Your task to perform on an android device: turn on airplane mode Image 0: 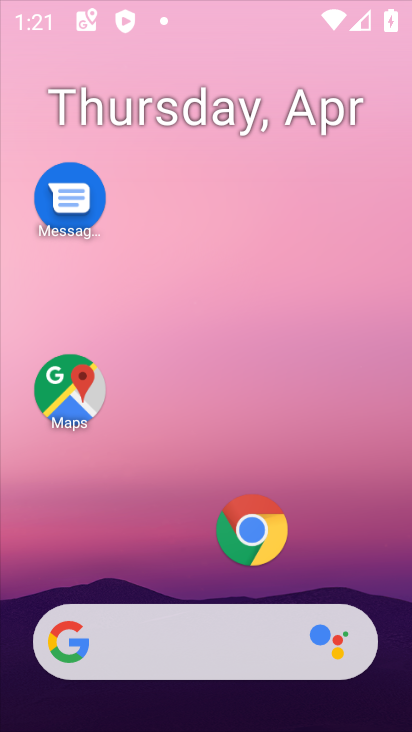
Step 0: click (187, 15)
Your task to perform on an android device: turn on airplane mode Image 1: 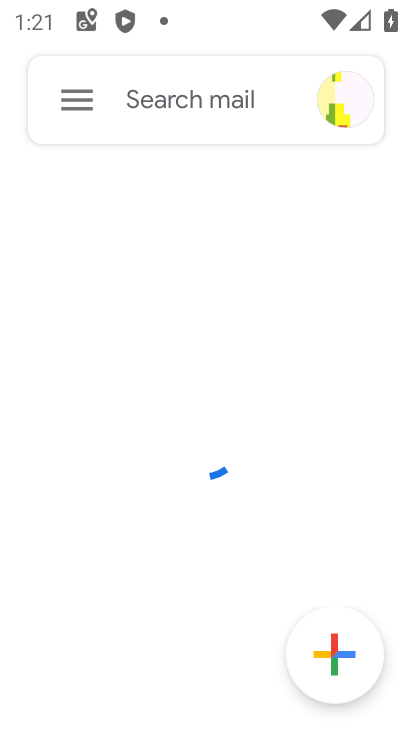
Step 1: press home button
Your task to perform on an android device: turn on airplane mode Image 2: 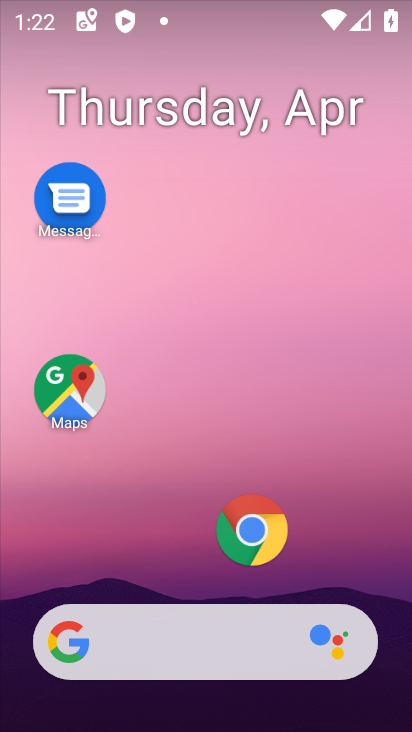
Step 2: drag from (191, 582) to (130, 1)
Your task to perform on an android device: turn on airplane mode Image 3: 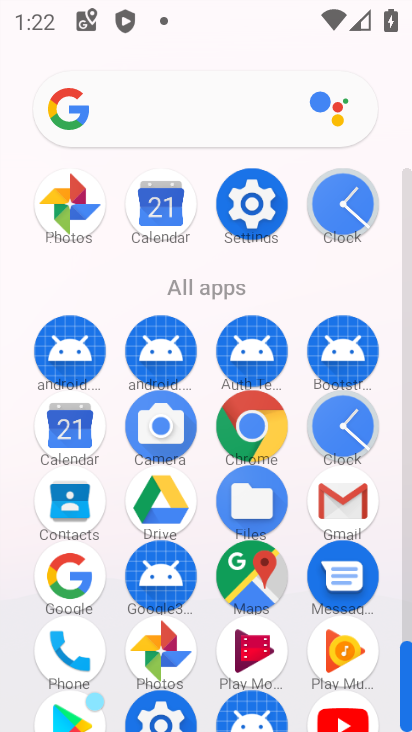
Step 3: click (243, 183)
Your task to perform on an android device: turn on airplane mode Image 4: 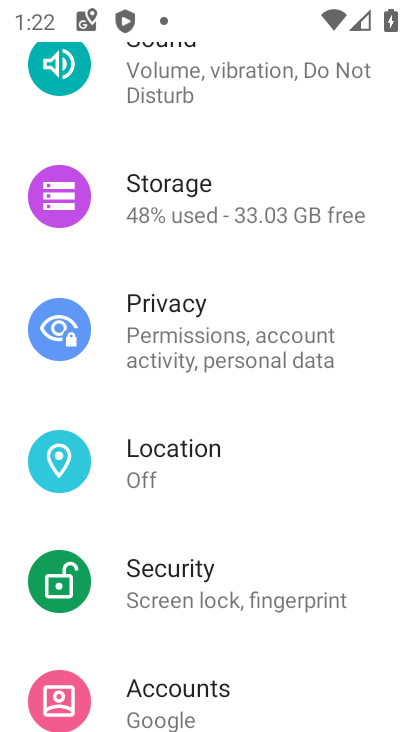
Step 4: drag from (176, 137) to (193, 420)
Your task to perform on an android device: turn on airplane mode Image 5: 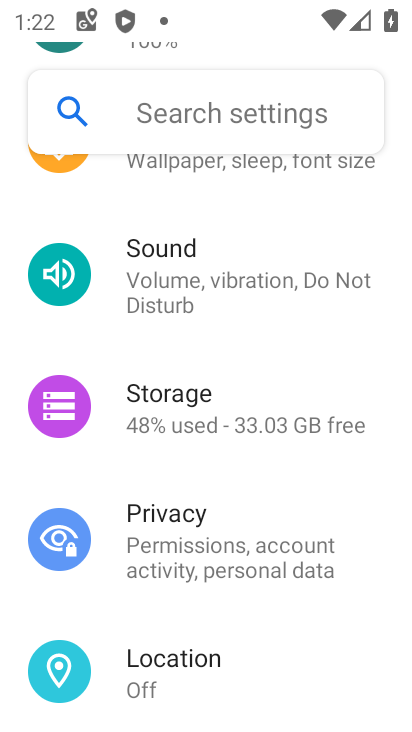
Step 5: drag from (198, 187) to (196, 584)
Your task to perform on an android device: turn on airplane mode Image 6: 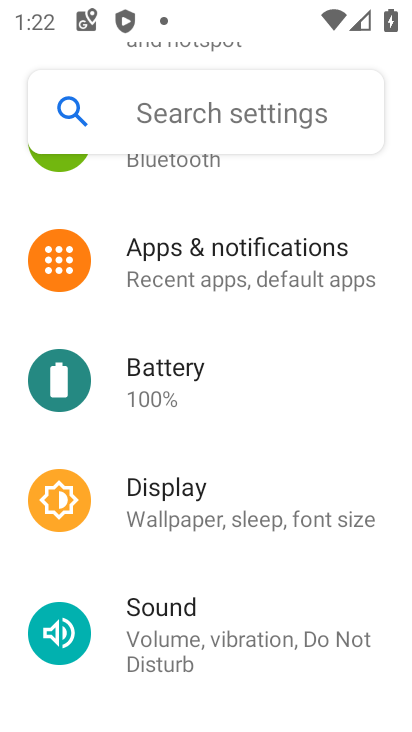
Step 6: drag from (158, 281) to (196, 570)
Your task to perform on an android device: turn on airplane mode Image 7: 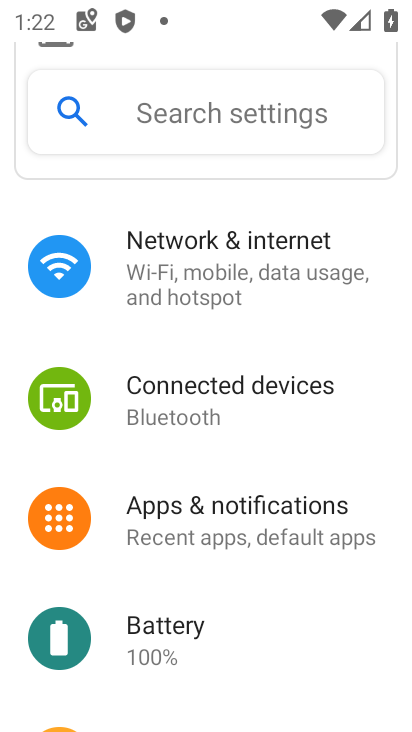
Step 7: click (136, 263)
Your task to perform on an android device: turn on airplane mode Image 8: 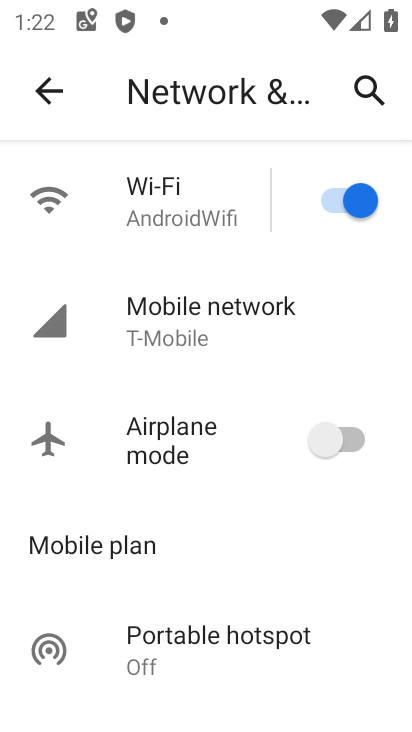
Step 8: click (313, 444)
Your task to perform on an android device: turn on airplane mode Image 9: 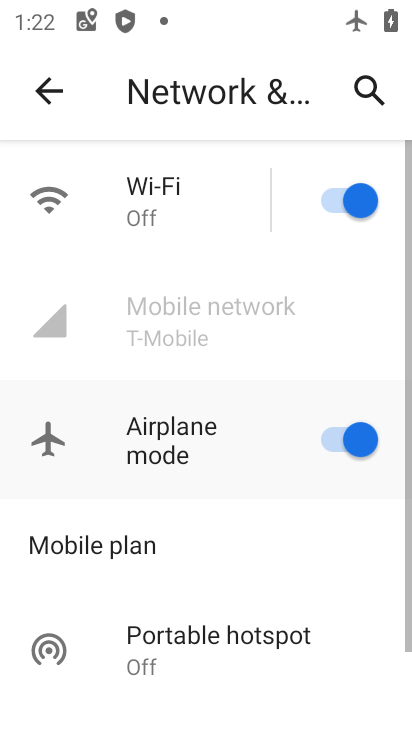
Step 9: task complete